Your task to perform on an android device: change text size in settings app Image 0: 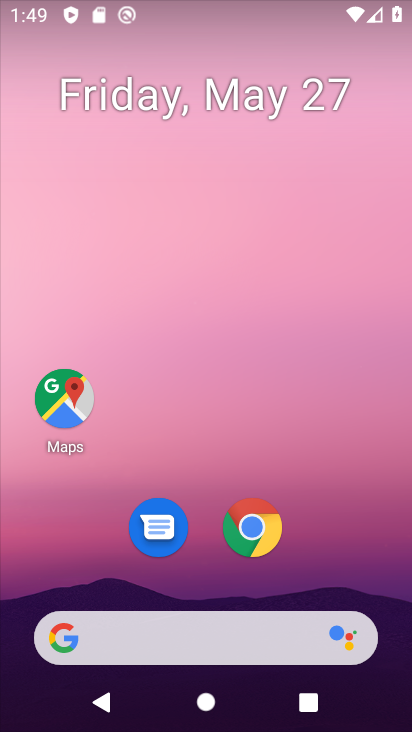
Step 0: drag from (177, 594) to (244, 248)
Your task to perform on an android device: change text size in settings app Image 1: 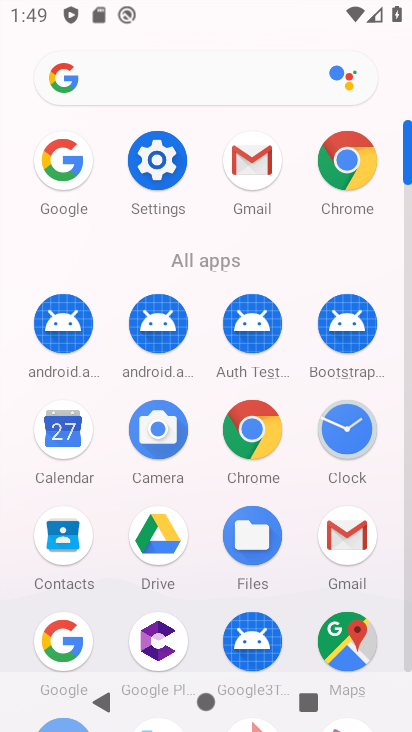
Step 1: click (136, 174)
Your task to perform on an android device: change text size in settings app Image 2: 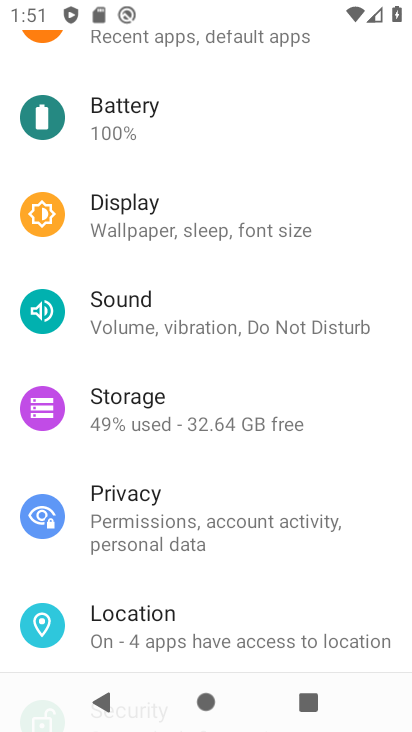
Step 2: drag from (104, 606) to (169, 134)
Your task to perform on an android device: change text size in settings app Image 3: 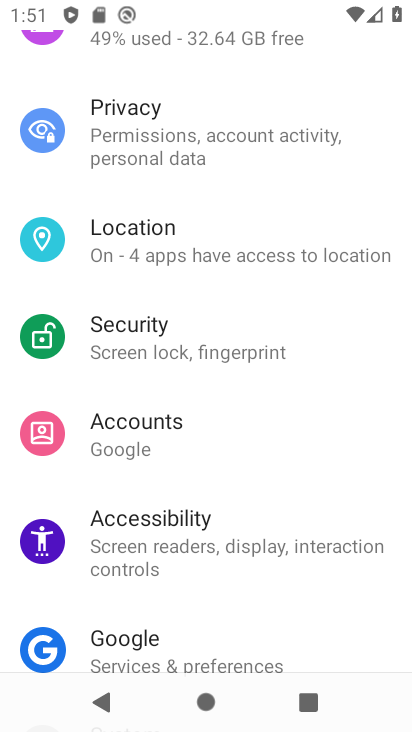
Step 3: click (137, 547)
Your task to perform on an android device: change text size in settings app Image 4: 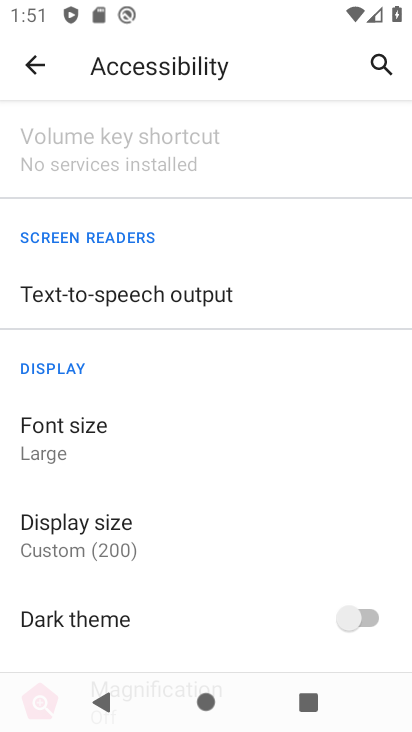
Step 4: click (90, 442)
Your task to perform on an android device: change text size in settings app Image 5: 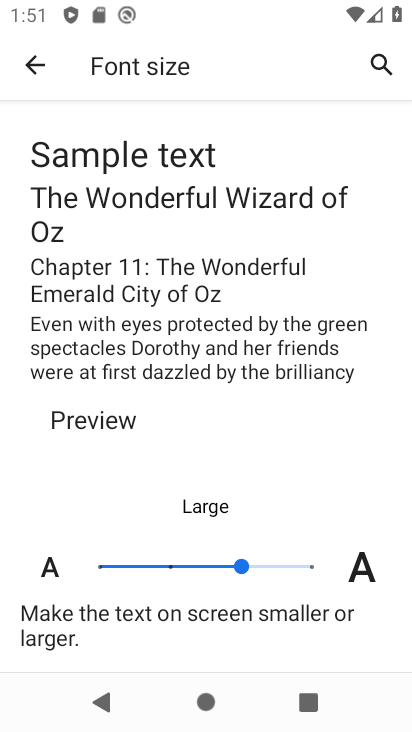
Step 5: click (185, 560)
Your task to perform on an android device: change text size in settings app Image 6: 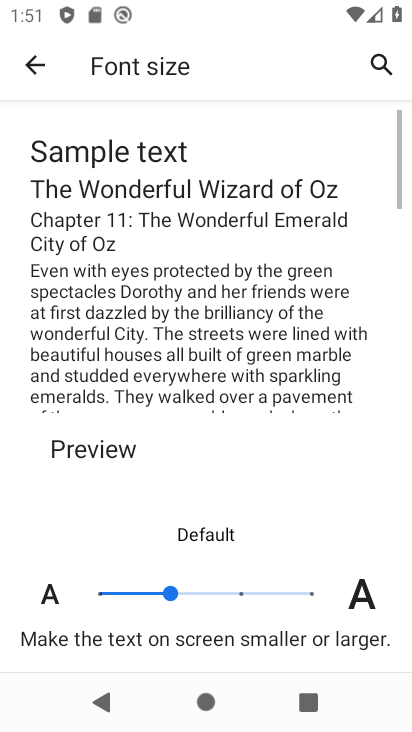
Step 6: task complete